Your task to perform on an android device: Open maps Image 0: 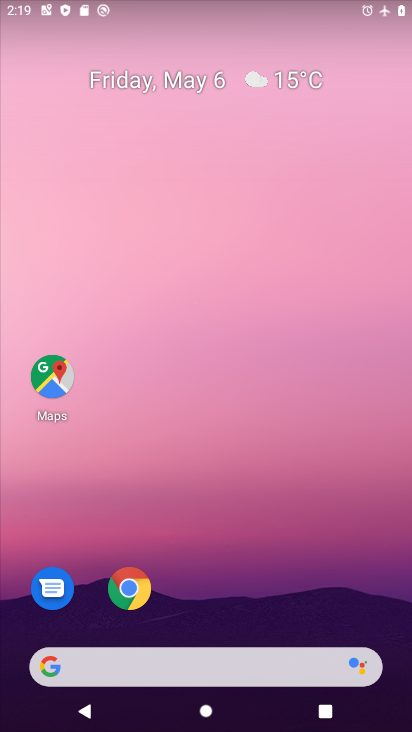
Step 0: drag from (221, 643) to (408, 400)
Your task to perform on an android device: Open maps Image 1: 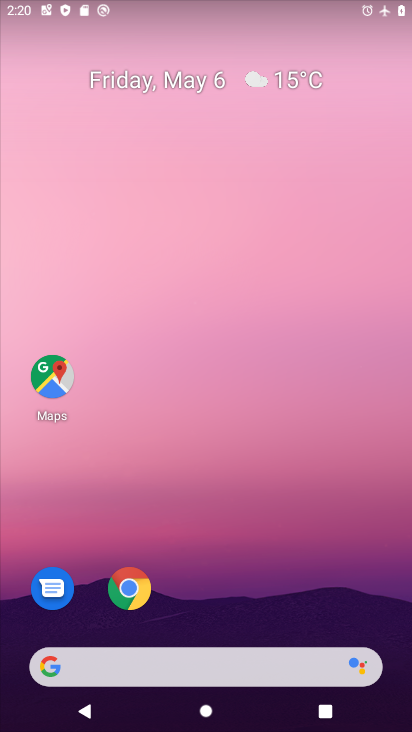
Step 1: drag from (187, 616) to (309, 69)
Your task to perform on an android device: Open maps Image 2: 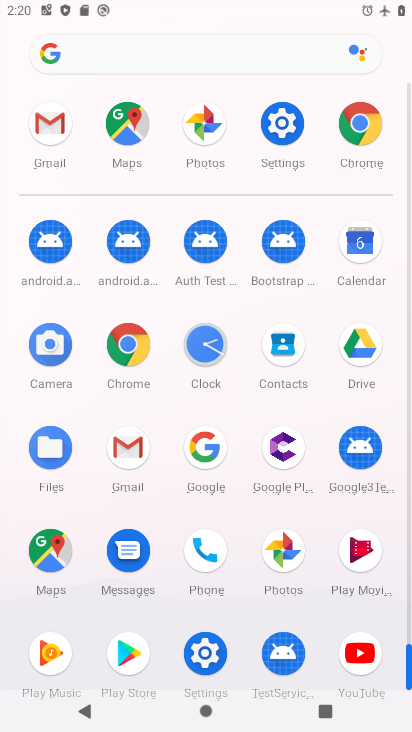
Step 2: click (48, 544)
Your task to perform on an android device: Open maps Image 3: 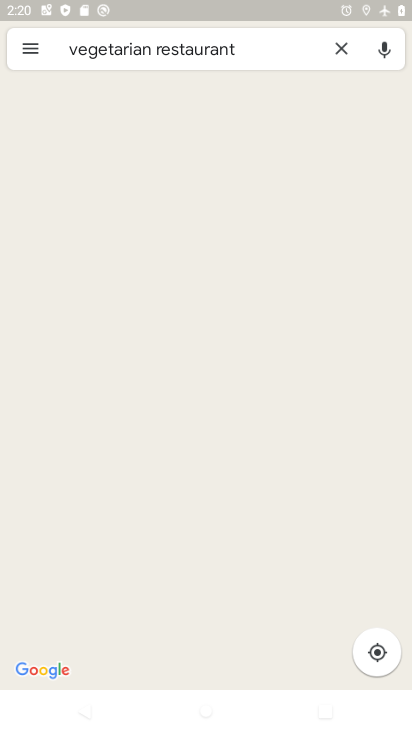
Step 3: task complete